Your task to perform on an android device: read, delete, or share a saved page in the chrome app Image 0: 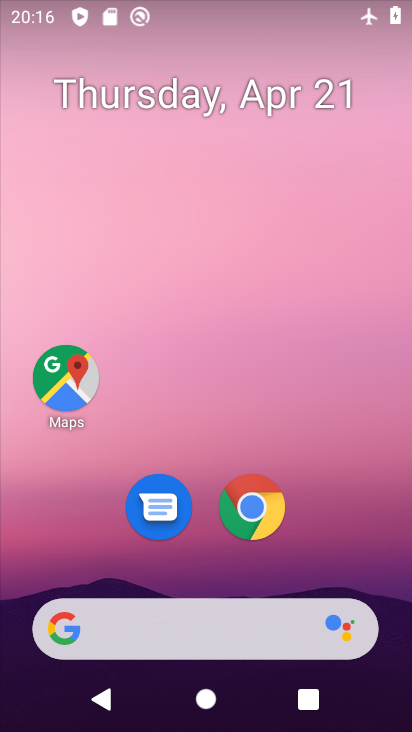
Step 0: drag from (256, 550) to (282, 93)
Your task to perform on an android device: read, delete, or share a saved page in the chrome app Image 1: 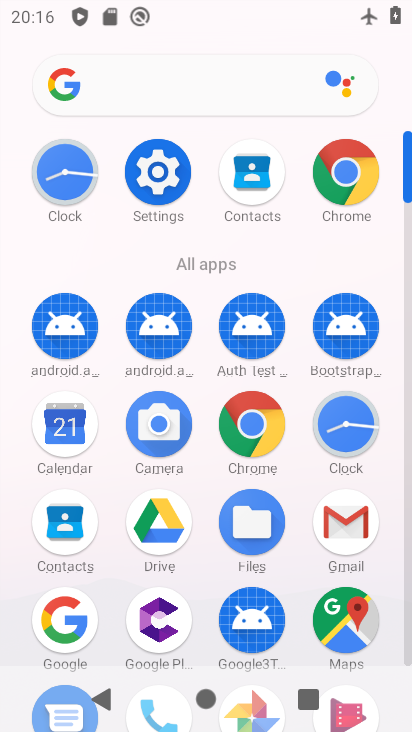
Step 1: click (343, 166)
Your task to perform on an android device: read, delete, or share a saved page in the chrome app Image 2: 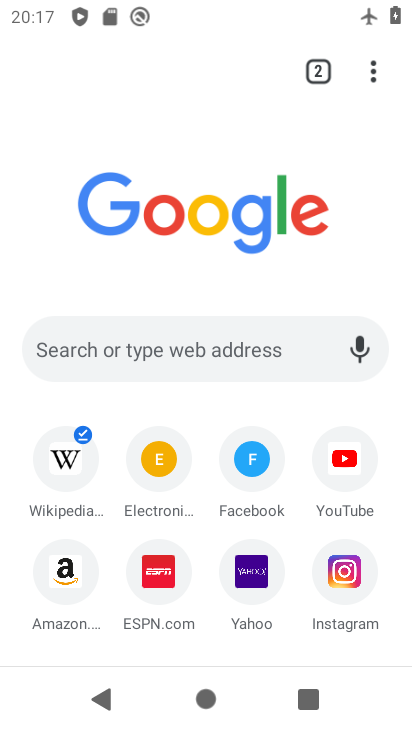
Step 2: drag from (377, 56) to (140, 392)
Your task to perform on an android device: read, delete, or share a saved page in the chrome app Image 3: 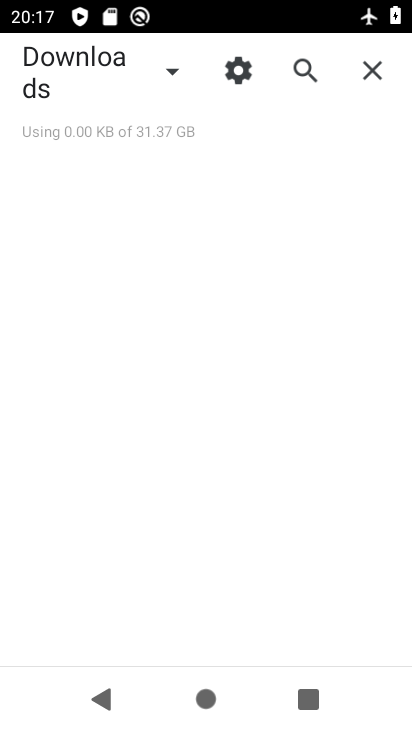
Step 3: click (166, 68)
Your task to perform on an android device: read, delete, or share a saved page in the chrome app Image 4: 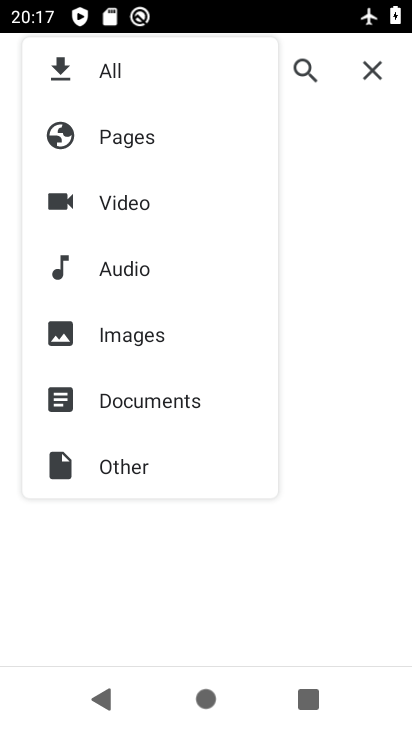
Step 4: click (142, 141)
Your task to perform on an android device: read, delete, or share a saved page in the chrome app Image 5: 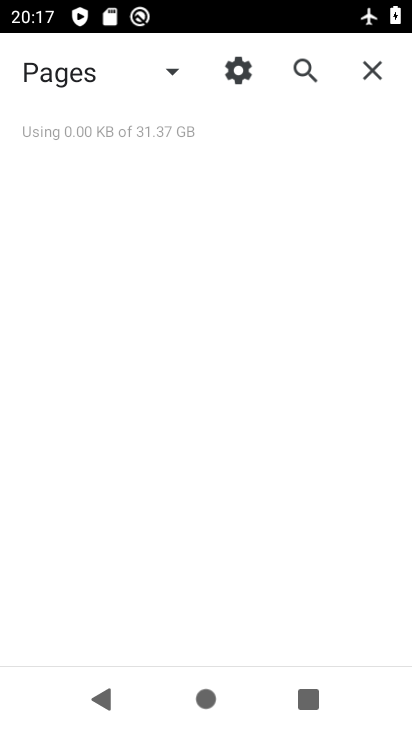
Step 5: task complete